Your task to perform on an android device: turn on location history Image 0: 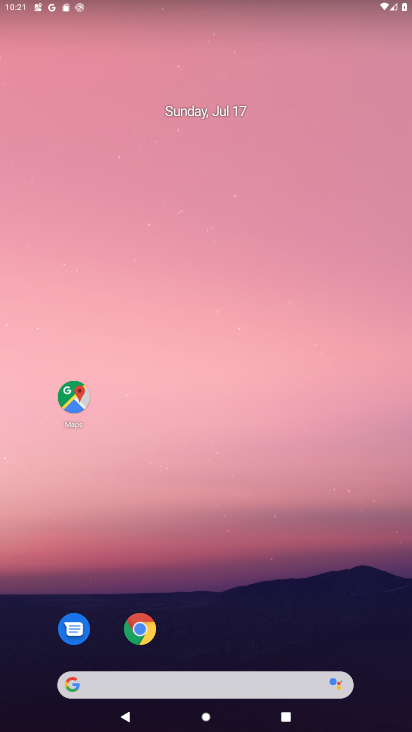
Step 0: drag from (192, 684) to (239, 179)
Your task to perform on an android device: turn on location history Image 1: 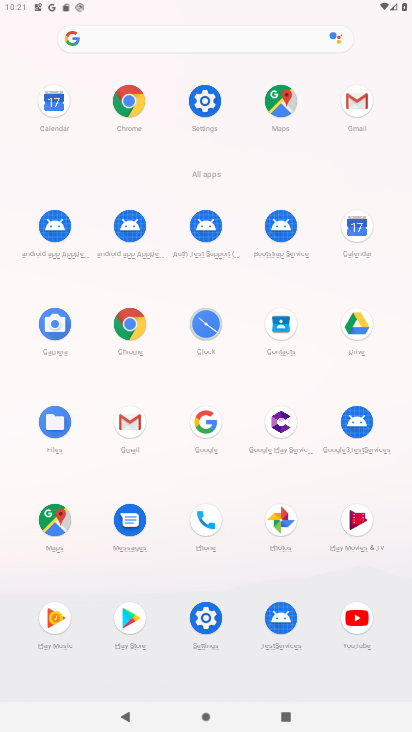
Step 1: click (205, 617)
Your task to perform on an android device: turn on location history Image 2: 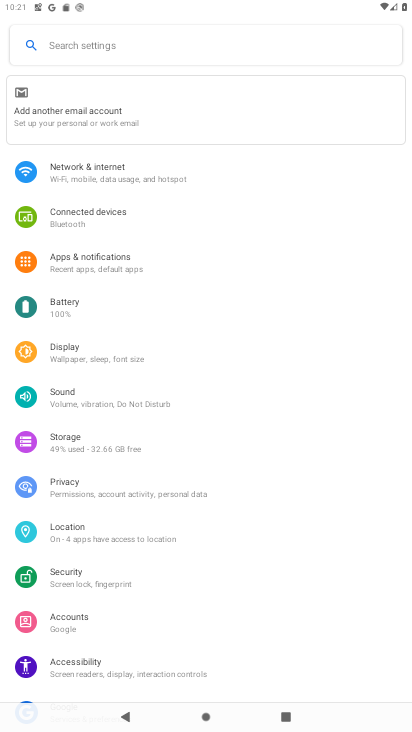
Step 2: click (71, 533)
Your task to perform on an android device: turn on location history Image 3: 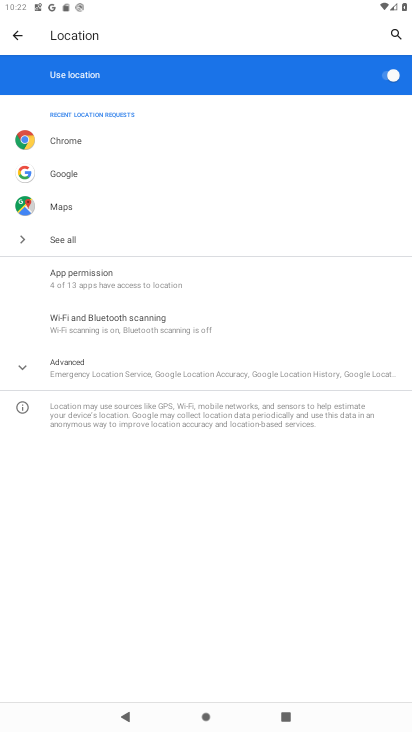
Step 3: click (119, 368)
Your task to perform on an android device: turn on location history Image 4: 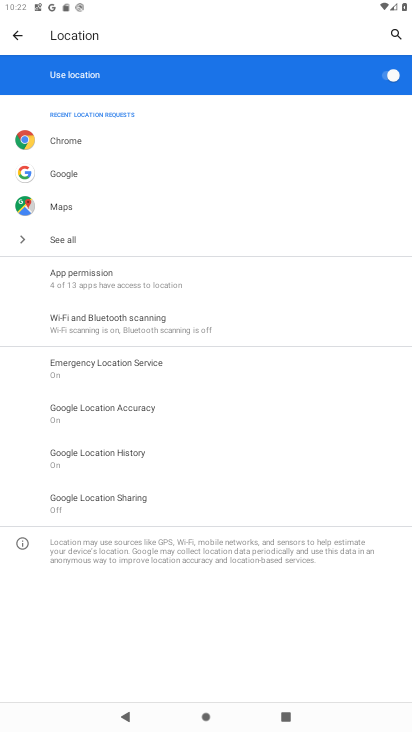
Step 4: click (116, 463)
Your task to perform on an android device: turn on location history Image 5: 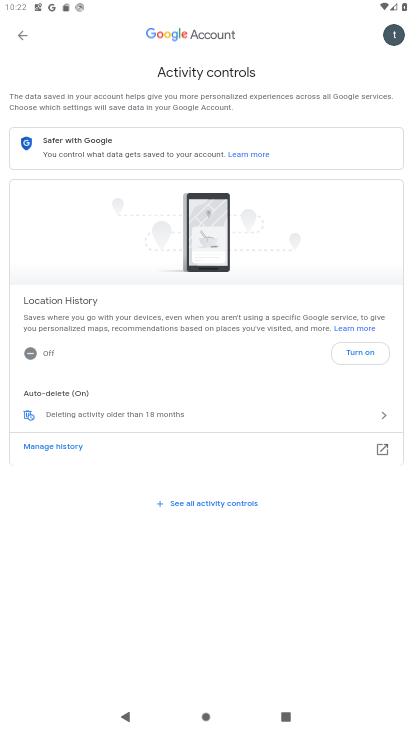
Step 5: task complete